Your task to perform on an android device: Open display settings Image 0: 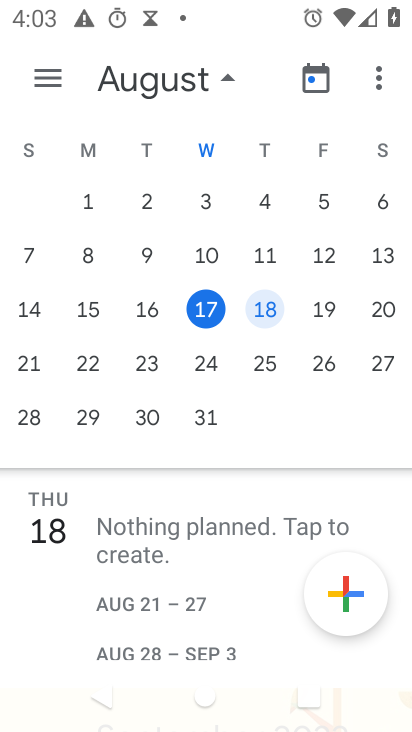
Step 0: press home button
Your task to perform on an android device: Open display settings Image 1: 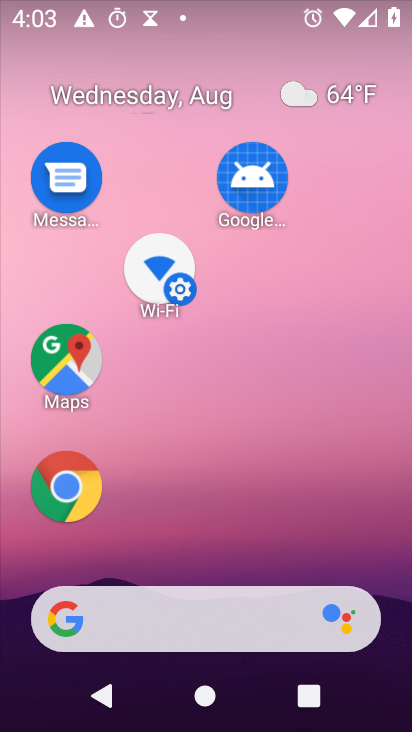
Step 1: drag from (301, 574) to (398, 147)
Your task to perform on an android device: Open display settings Image 2: 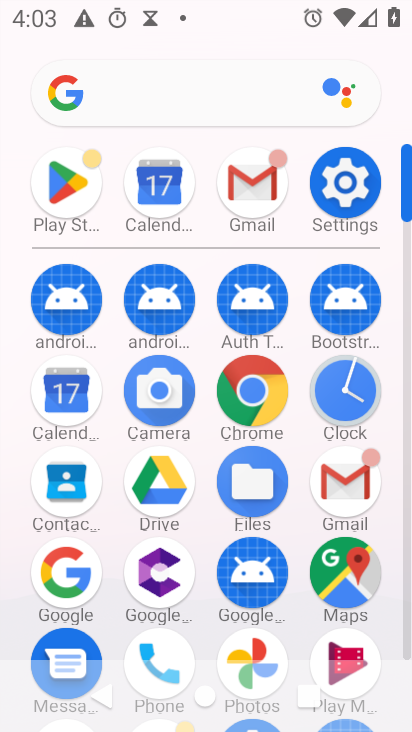
Step 2: click (345, 178)
Your task to perform on an android device: Open display settings Image 3: 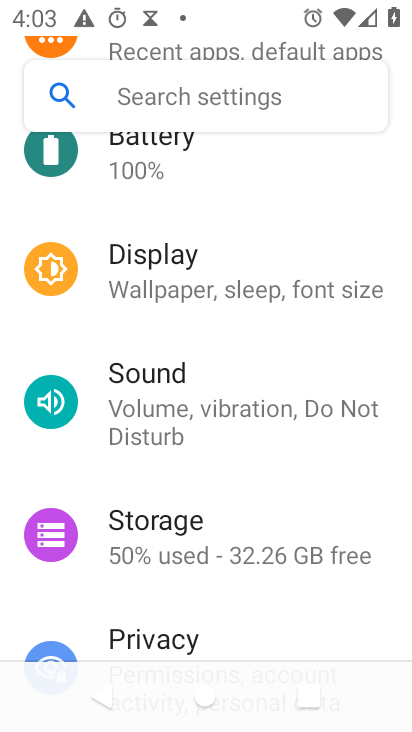
Step 3: click (159, 258)
Your task to perform on an android device: Open display settings Image 4: 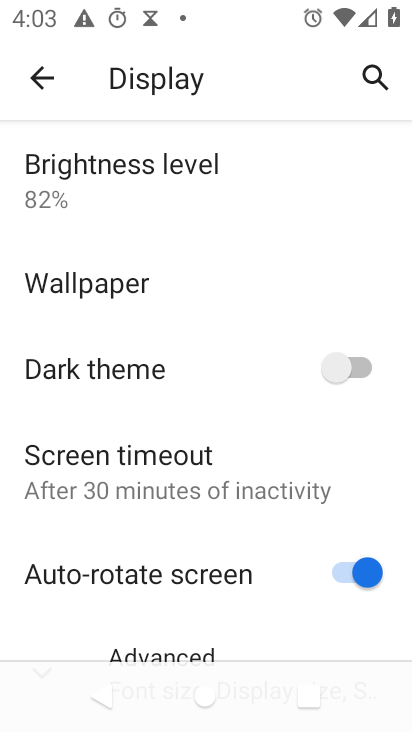
Step 4: task complete